Your task to perform on an android device: install app "Spotify: Music and Podcasts" Image 0: 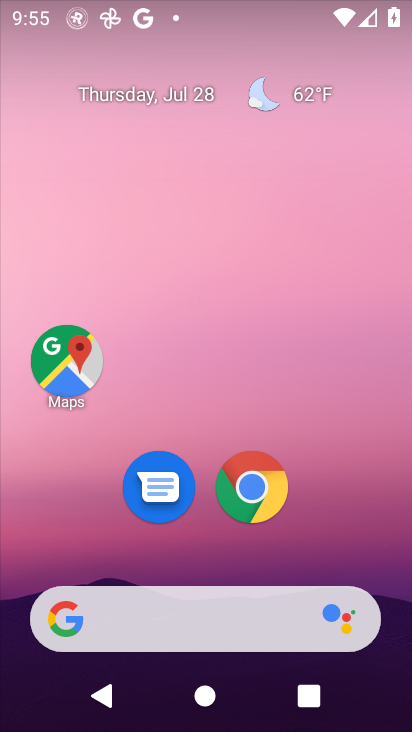
Step 0: drag from (258, 563) to (254, 123)
Your task to perform on an android device: install app "Spotify: Music and Podcasts" Image 1: 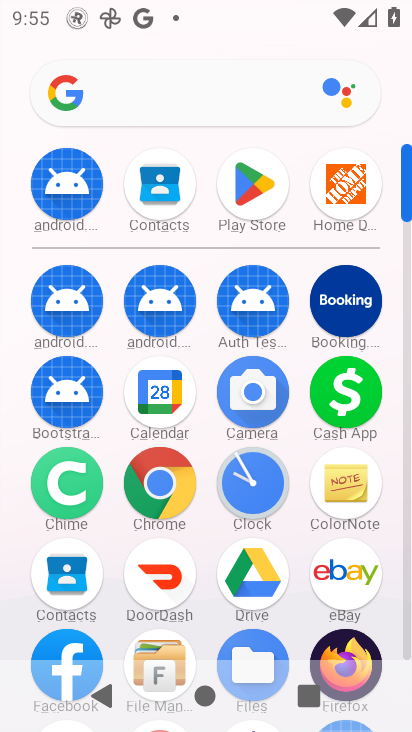
Step 1: click (254, 201)
Your task to perform on an android device: install app "Spotify: Music and Podcasts" Image 2: 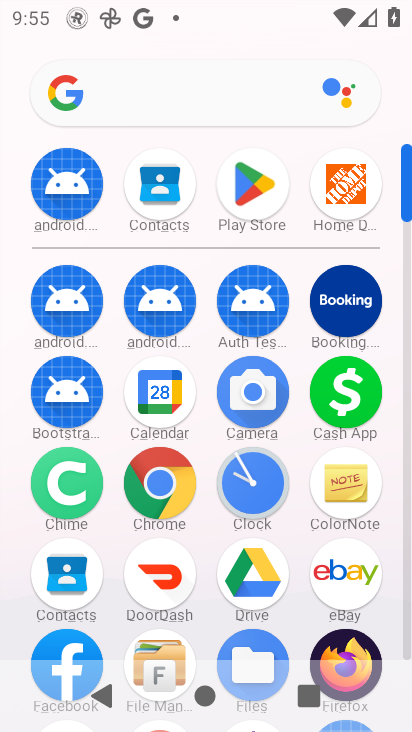
Step 2: click (256, 201)
Your task to perform on an android device: install app "Spotify: Music and Podcasts" Image 3: 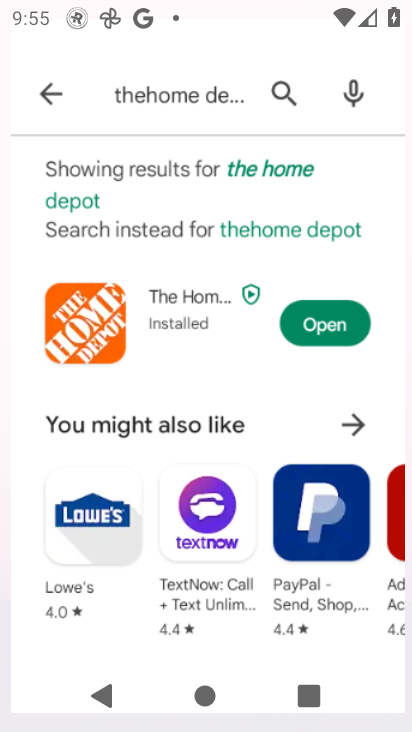
Step 3: click (256, 201)
Your task to perform on an android device: install app "Spotify: Music and Podcasts" Image 4: 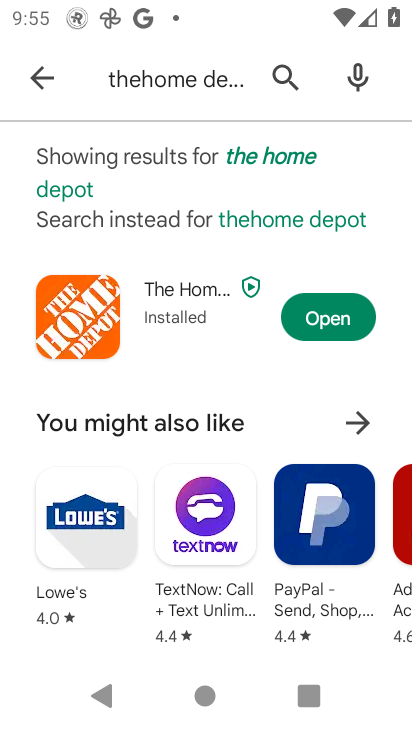
Step 4: click (44, 86)
Your task to perform on an android device: install app "Spotify: Music and Podcasts" Image 5: 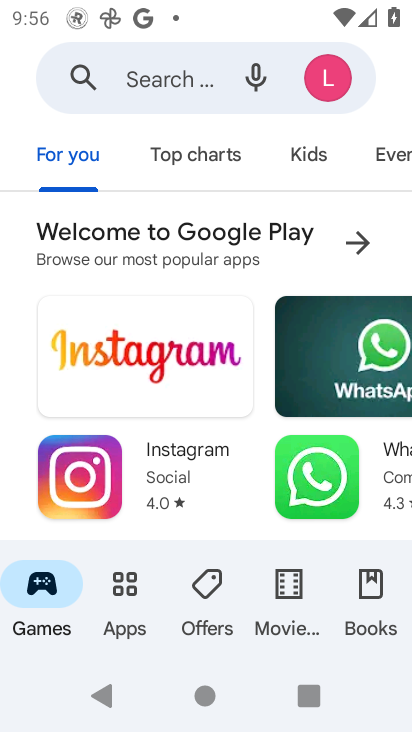
Step 5: click (142, 82)
Your task to perform on an android device: install app "Spotify: Music and Podcasts" Image 6: 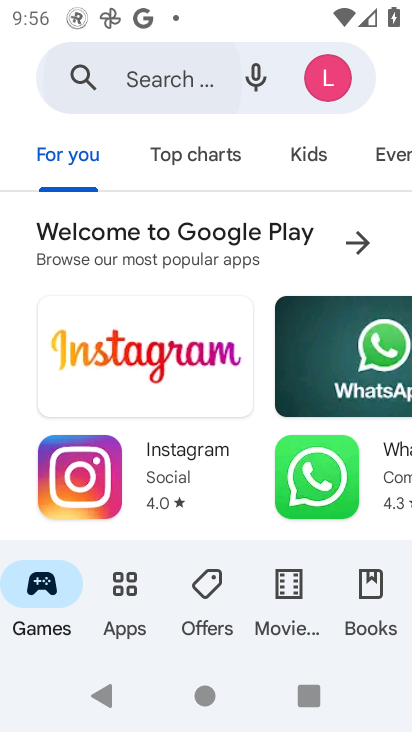
Step 6: click (143, 83)
Your task to perform on an android device: install app "Spotify: Music and Podcasts" Image 7: 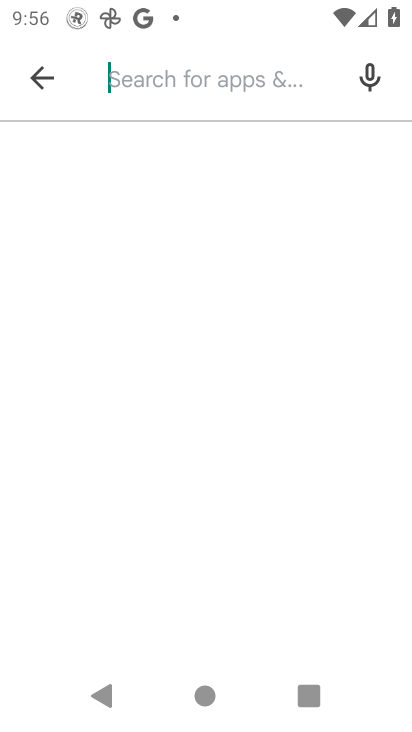
Step 7: click (143, 83)
Your task to perform on an android device: install app "Spotify: Music and Podcasts" Image 8: 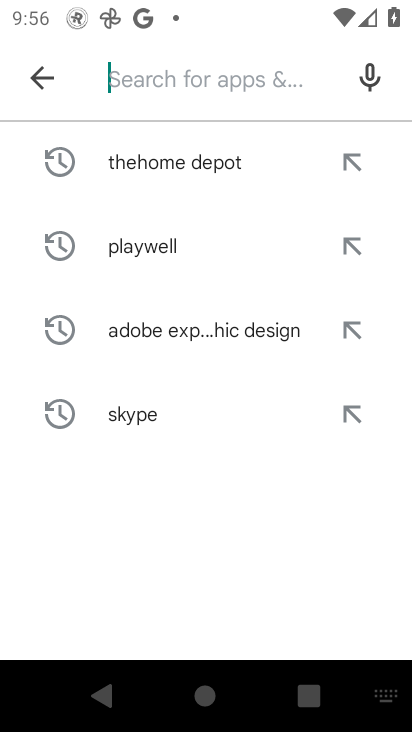
Step 8: type "Spotify: Music and Podcasts"
Your task to perform on an android device: install app "Spotify: Music and Podcasts" Image 9: 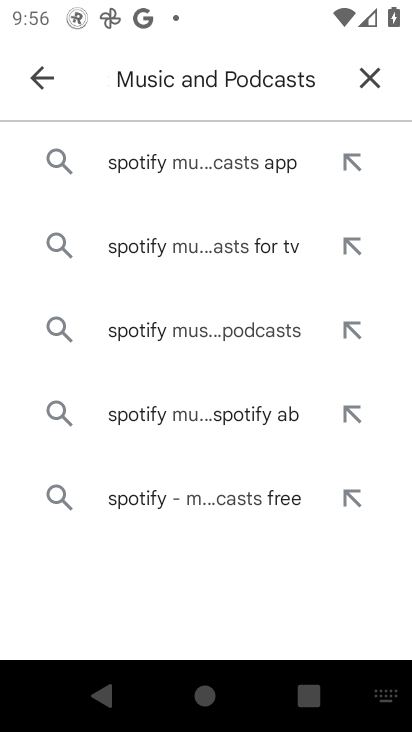
Step 9: click (241, 181)
Your task to perform on an android device: install app "Spotify: Music and Podcasts" Image 10: 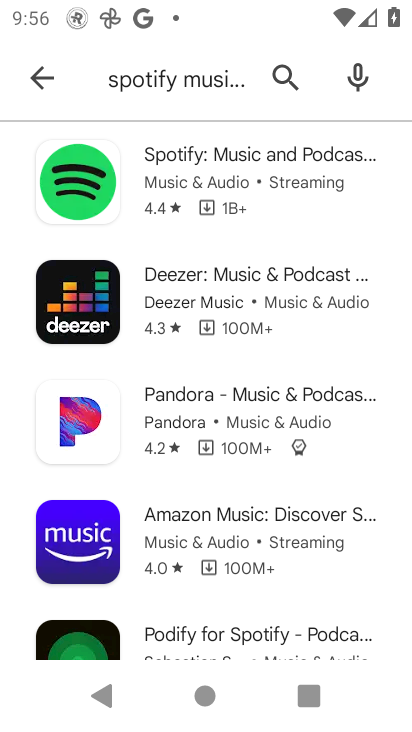
Step 10: click (252, 167)
Your task to perform on an android device: install app "Spotify: Music and Podcasts" Image 11: 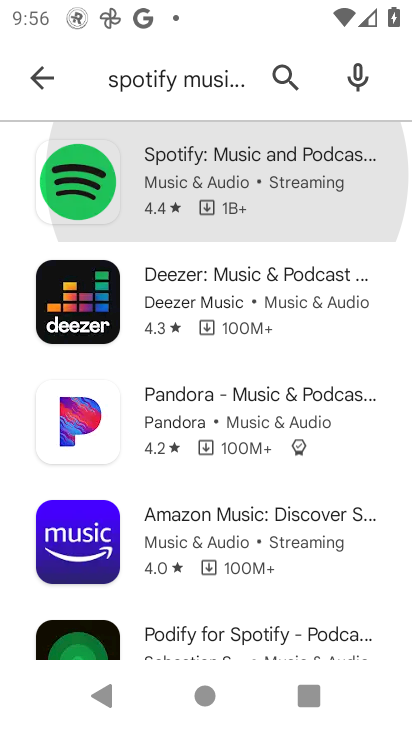
Step 11: click (252, 167)
Your task to perform on an android device: install app "Spotify: Music and Podcasts" Image 12: 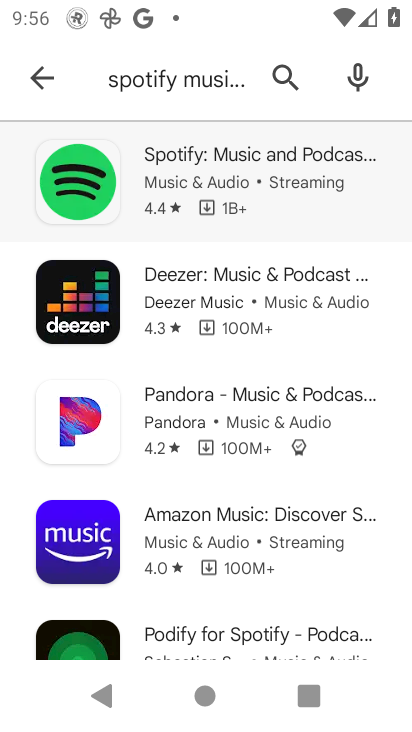
Step 12: click (254, 164)
Your task to perform on an android device: install app "Spotify: Music and Podcasts" Image 13: 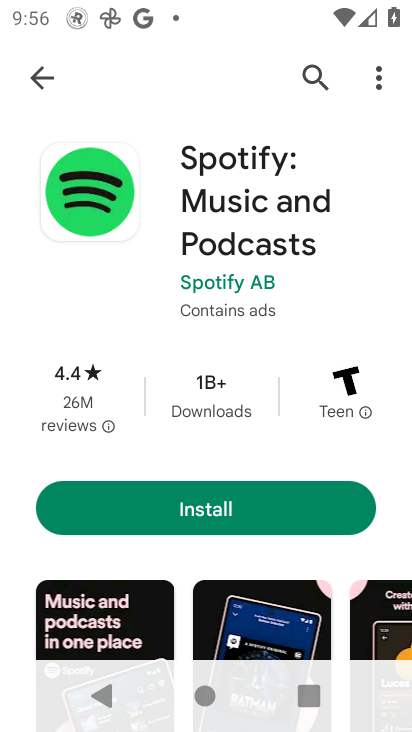
Step 13: click (241, 507)
Your task to perform on an android device: install app "Spotify: Music and Podcasts" Image 14: 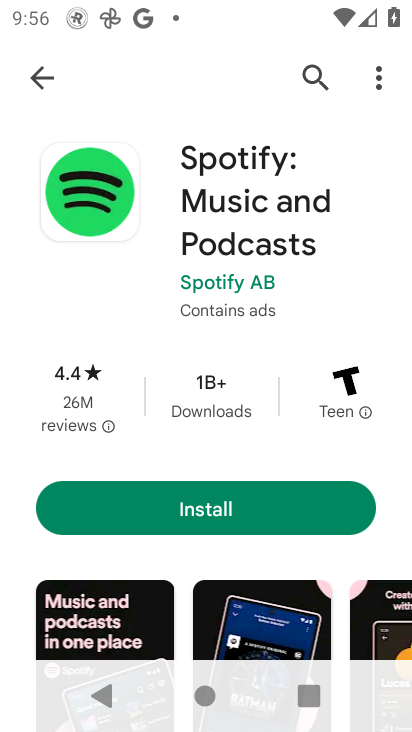
Step 14: click (242, 507)
Your task to perform on an android device: install app "Spotify: Music and Podcasts" Image 15: 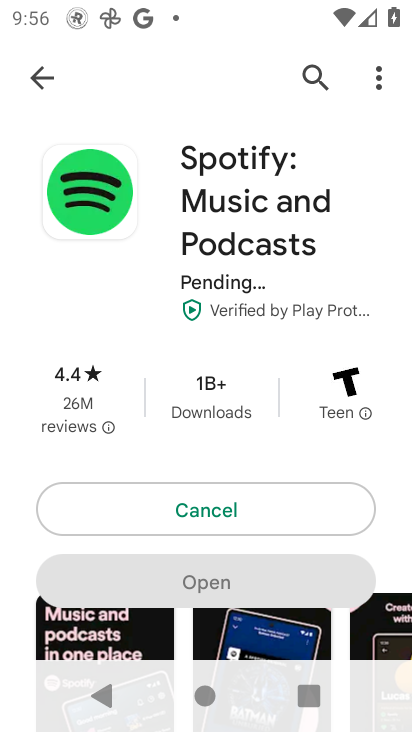
Step 15: click (242, 507)
Your task to perform on an android device: install app "Spotify: Music and Podcasts" Image 16: 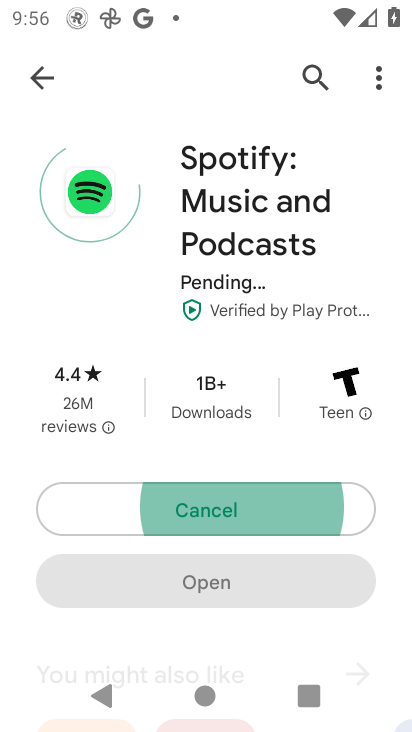
Step 16: click (243, 508)
Your task to perform on an android device: install app "Spotify: Music and Podcasts" Image 17: 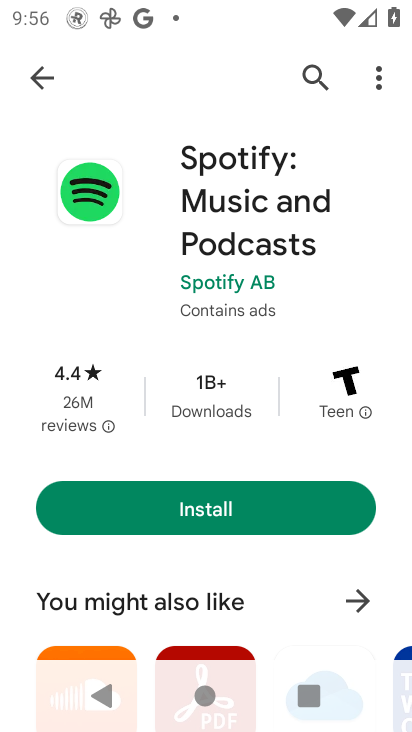
Step 17: click (243, 511)
Your task to perform on an android device: install app "Spotify: Music and Podcasts" Image 18: 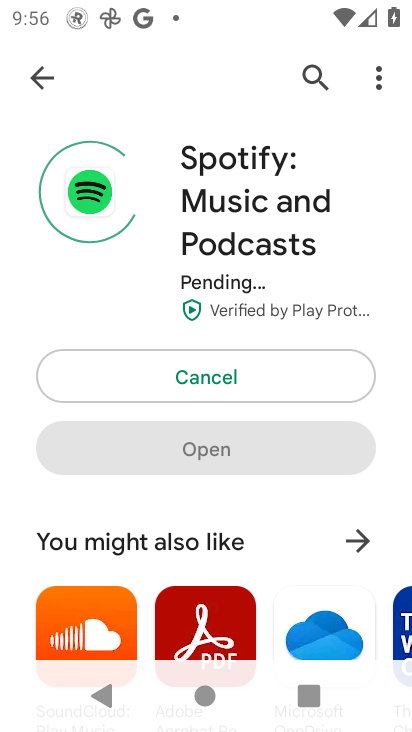
Step 18: click (242, 501)
Your task to perform on an android device: install app "Spotify: Music and Podcasts" Image 19: 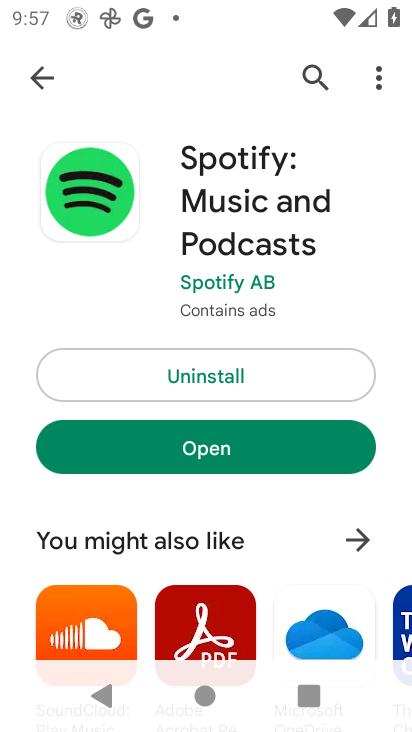
Step 19: click (236, 449)
Your task to perform on an android device: install app "Spotify: Music and Podcasts" Image 20: 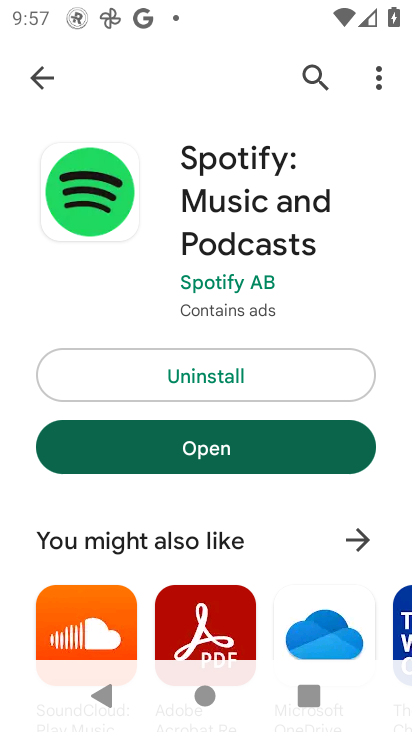
Step 20: click (242, 449)
Your task to perform on an android device: install app "Spotify: Music and Podcasts" Image 21: 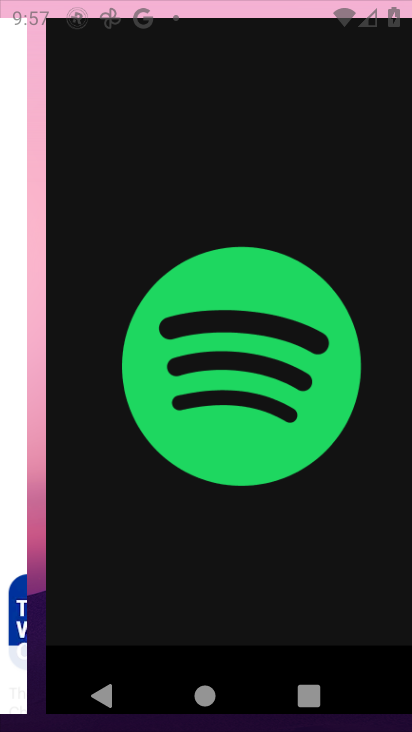
Step 21: click (242, 449)
Your task to perform on an android device: install app "Spotify: Music and Podcasts" Image 22: 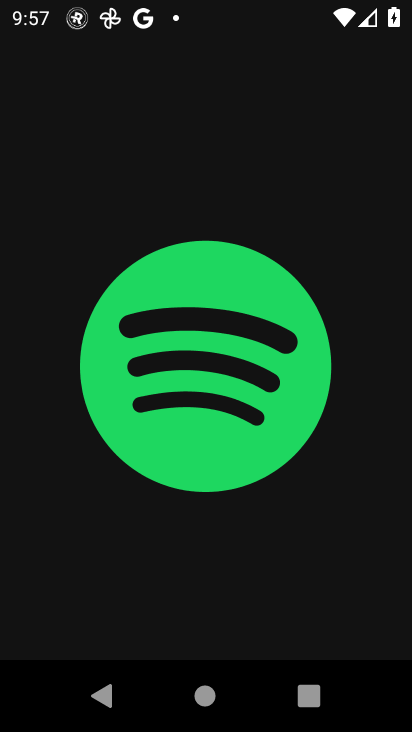
Step 22: task complete